Your task to perform on an android device: see sites visited before in the chrome app Image 0: 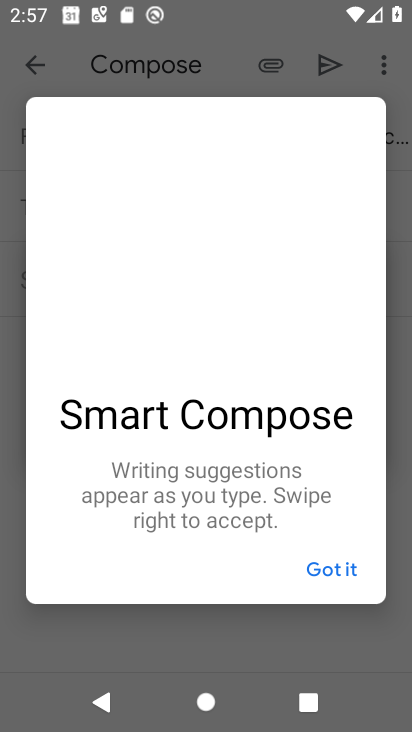
Step 0: press home button
Your task to perform on an android device: see sites visited before in the chrome app Image 1: 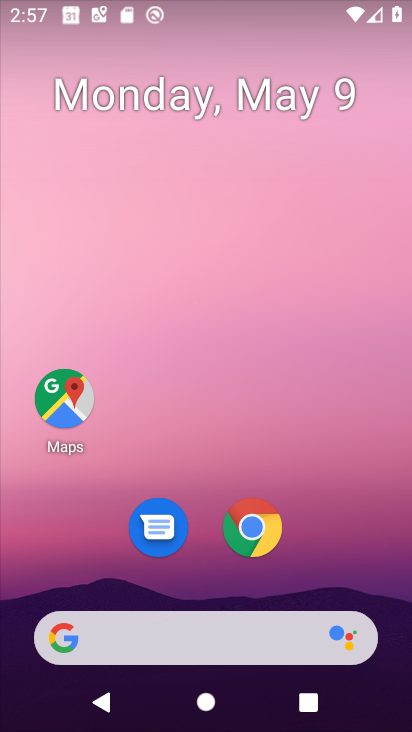
Step 1: click (252, 551)
Your task to perform on an android device: see sites visited before in the chrome app Image 2: 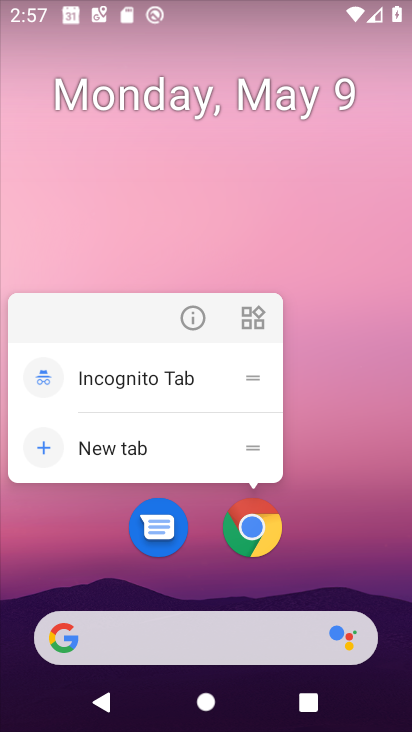
Step 2: click (252, 551)
Your task to perform on an android device: see sites visited before in the chrome app Image 3: 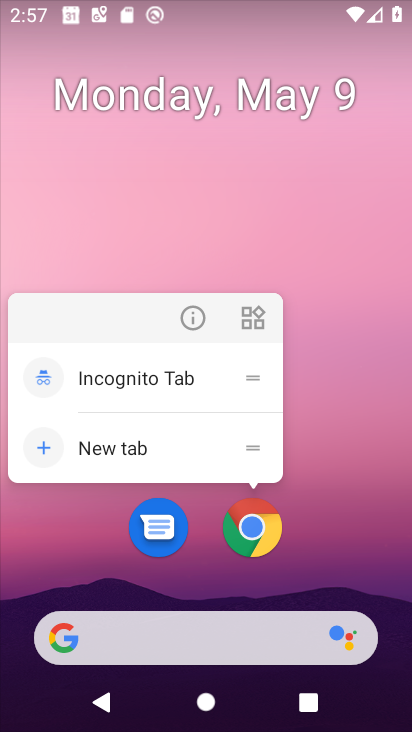
Step 3: click (263, 548)
Your task to perform on an android device: see sites visited before in the chrome app Image 4: 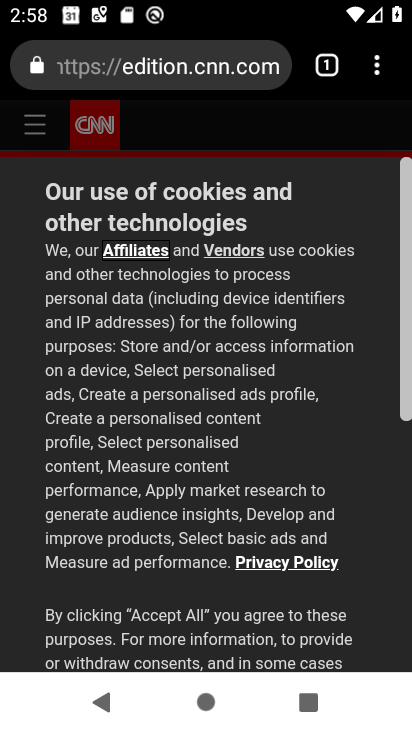
Step 4: click (367, 60)
Your task to perform on an android device: see sites visited before in the chrome app Image 5: 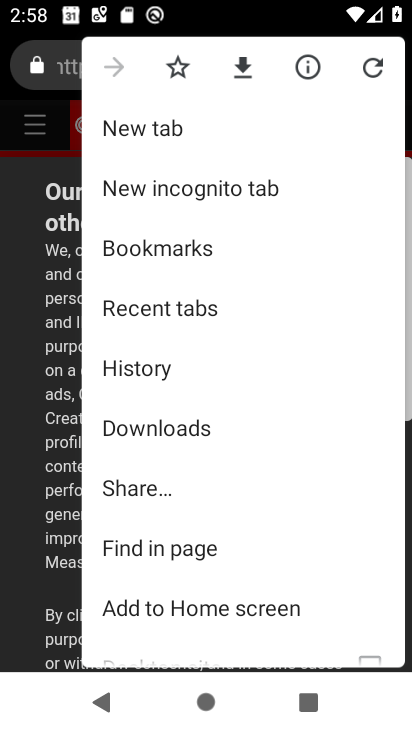
Step 5: click (212, 375)
Your task to perform on an android device: see sites visited before in the chrome app Image 6: 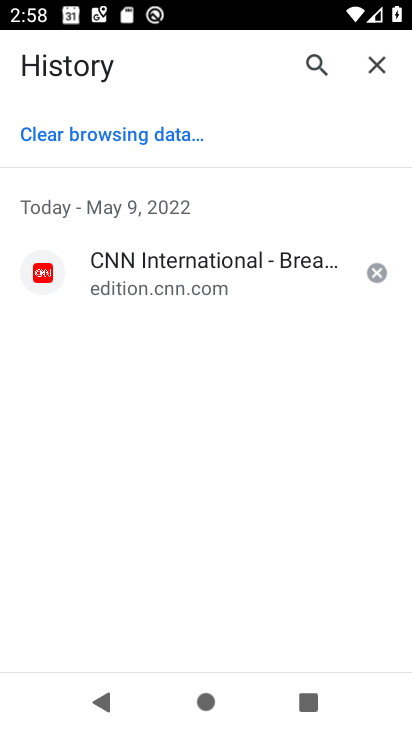
Step 6: task complete